Your task to perform on an android device: turn off sleep mode Image 0: 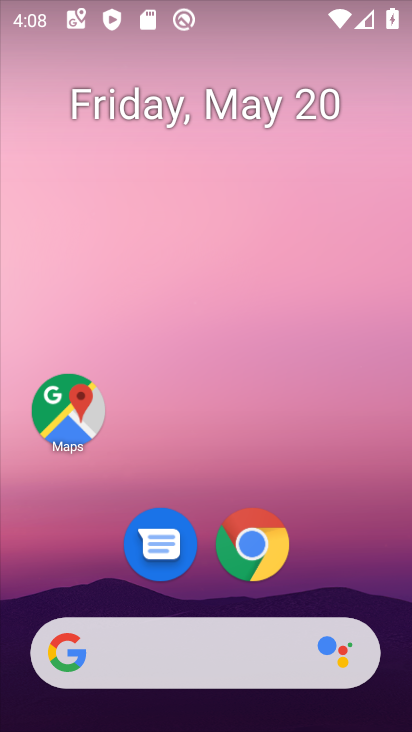
Step 0: drag from (372, 602) to (410, 355)
Your task to perform on an android device: turn off sleep mode Image 1: 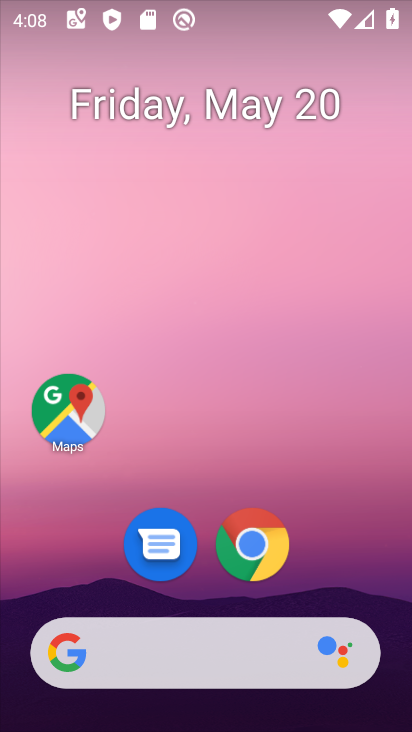
Step 1: drag from (363, 591) to (361, 4)
Your task to perform on an android device: turn off sleep mode Image 2: 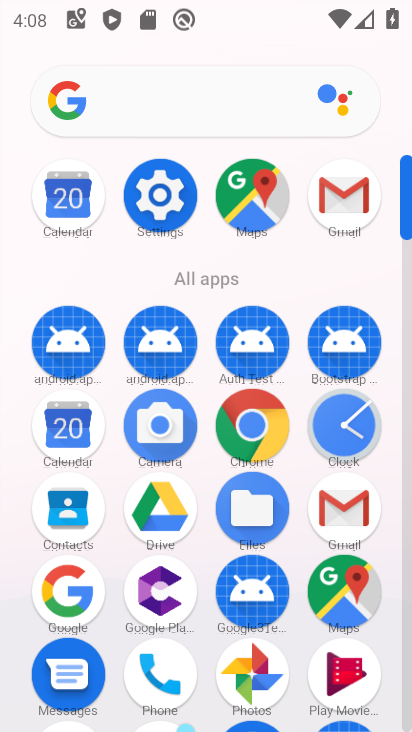
Step 2: click (158, 199)
Your task to perform on an android device: turn off sleep mode Image 3: 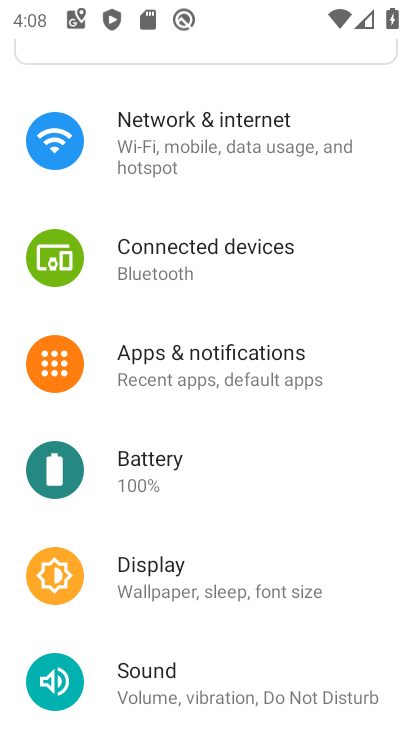
Step 3: click (160, 570)
Your task to perform on an android device: turn off sleep mode Image 4: 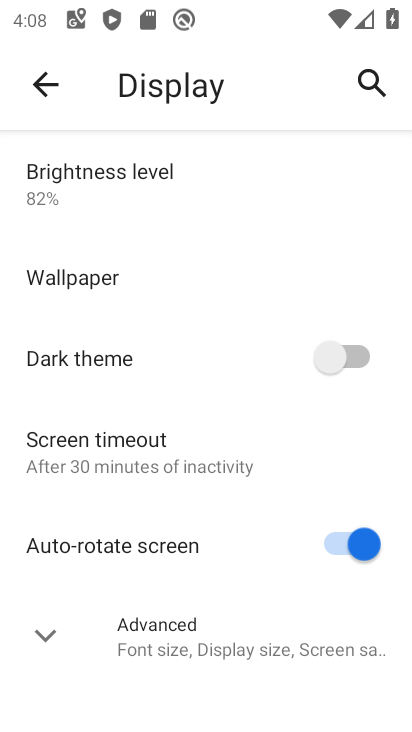
Step 4: click (46, 645)
Your task to perform on an android device: turn off sleep mode Image 5: 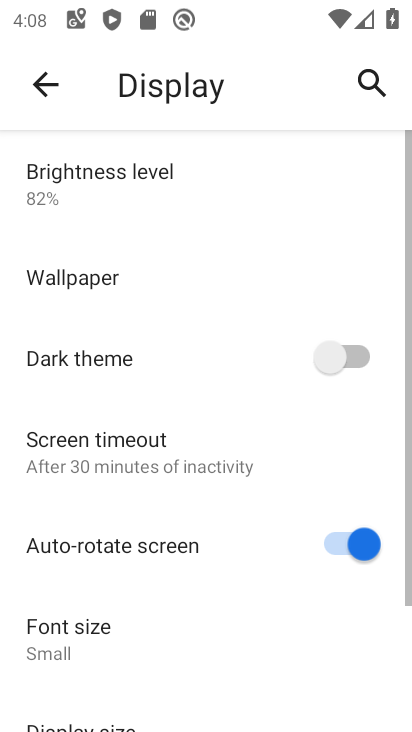
Step 5: task complete